Your task to perform on an android device: Open ESPN.com Image 0: 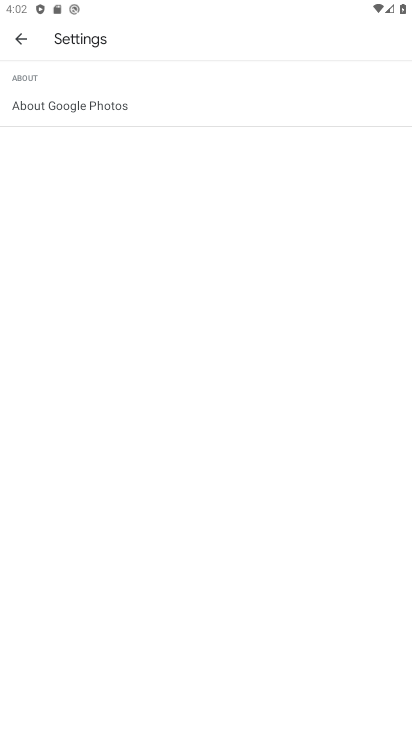
Step 0: press home button
Your task to perform on an android device: Open ESPN.com Image 1: 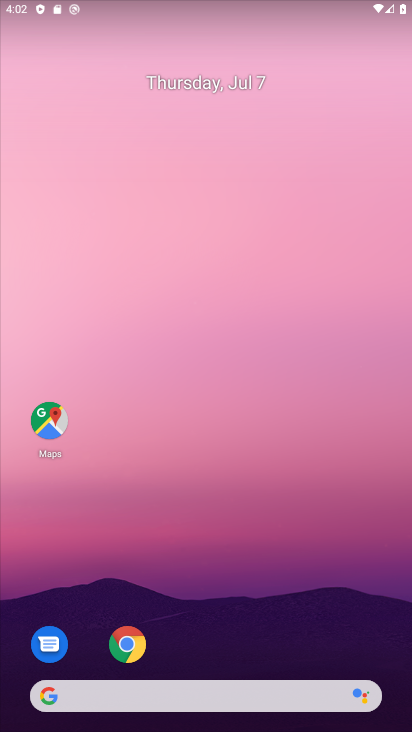
Step 1: click (140, 643)
Your task to perform on an android device: Open ESPN.com Image 2: 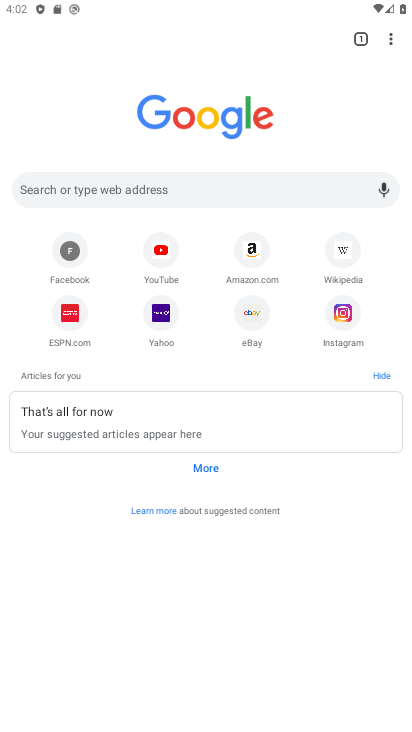
Step 2: click (73, 321)
Your task to perform on an android device: Open ESPN.com Image 3: 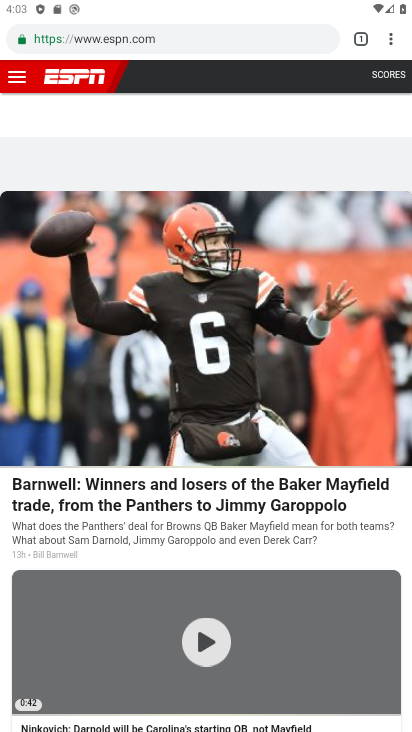
Step 3: task complete